Your task to perform on an android device: clear history in the chrome app Image 0: 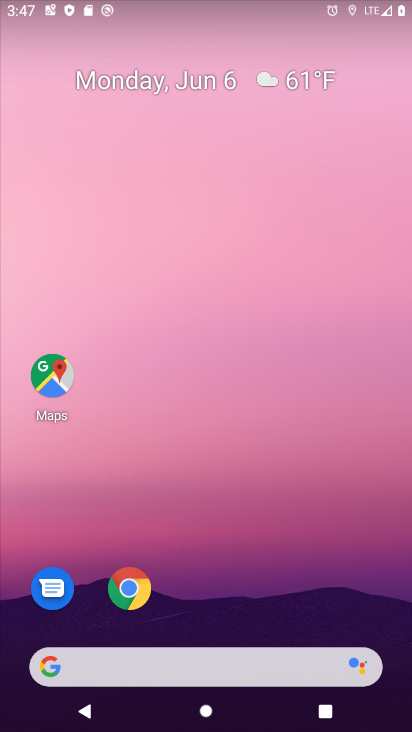
Step 0: drag from (274, 493) to (221, 139)
Your task to perform on an android device: clear history in the chrome app Image 1: 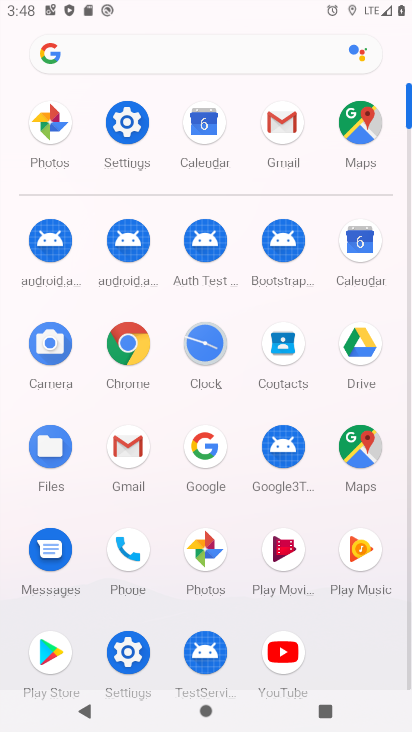
Step 1: click (113, 357)
Your task to perform on an android device: clear history in the chrome app Image 2: 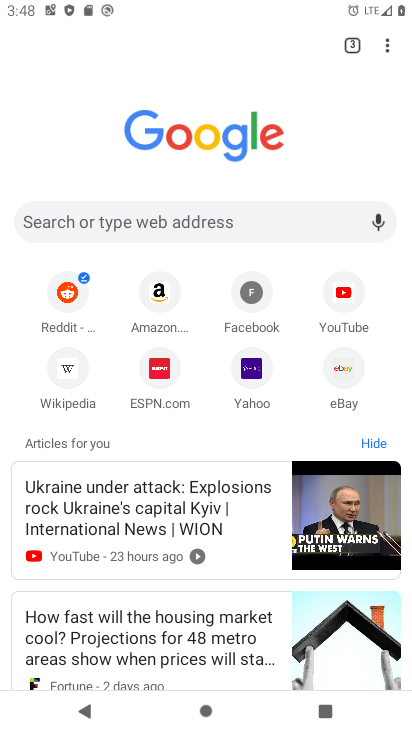
Step 2: click (380, 55)
Your task to perform on an android device: clear history in the chrome app Image 3: 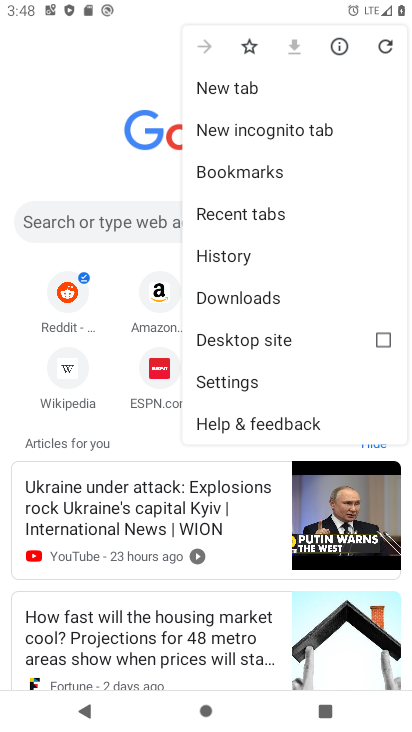
Step 3: click (246, 254)
Your task to perform on an android device: clear history in the chrome app Image 4: 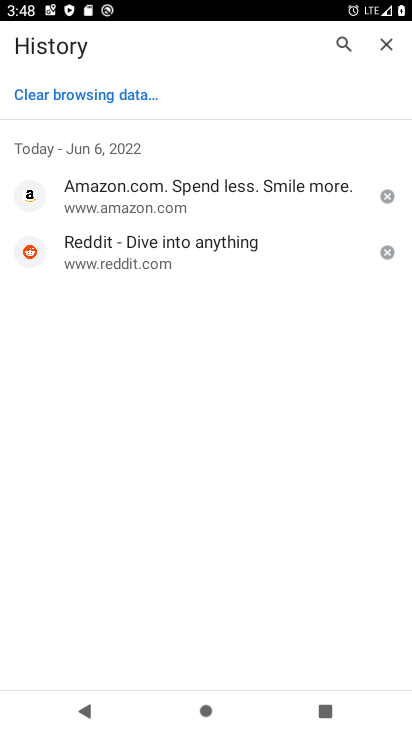
Step 4: click (123, 93)
Your task to perform on an android device: clear history in the chrome app Image 5: 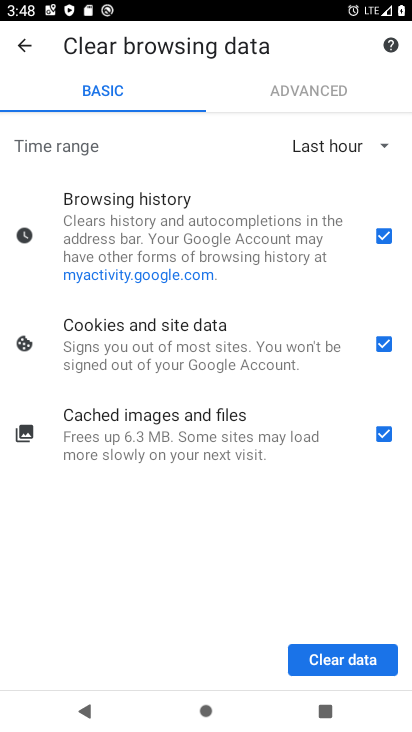
Step 5: click (382, 428)
Your task to perform on an android device: clear history in the chrome app Image 6: 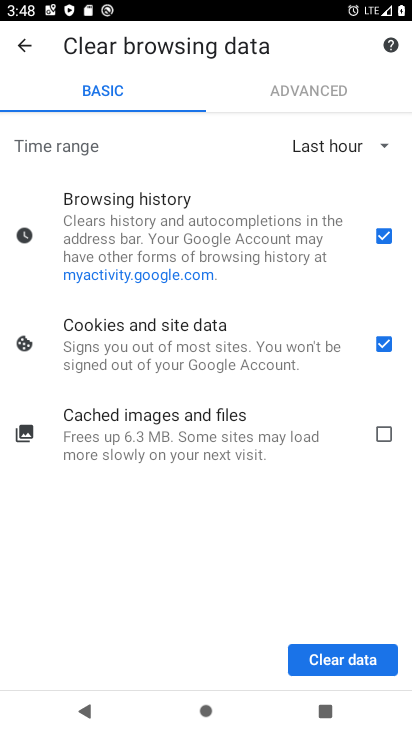
Step 6: click (378, 343)
Your task to perform on an android device: clear history in the chrome app Image 7: 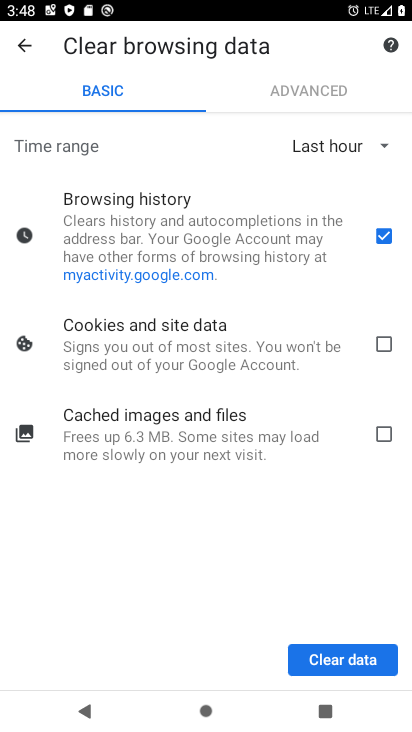
Step 7: click (353, 654)
Your task to perform on an android device: clear history in the chrome app Image 8: 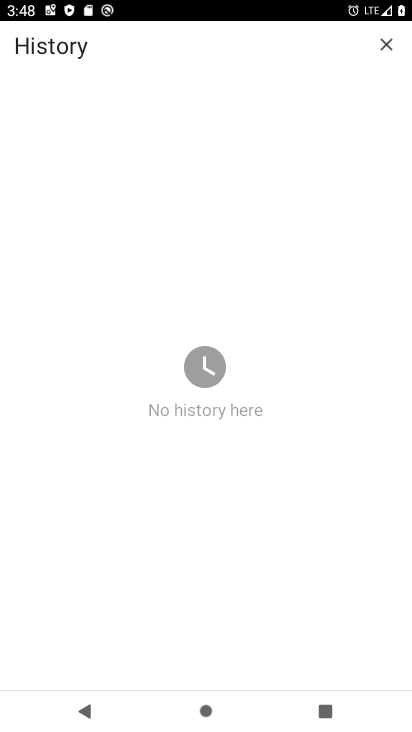
Step 8: task complete